Your task to perform on an android device: open app "Etsy: Buy & Sell Unique Items" (install if not already installed) and enter user name: "camp@inbox.com" and password: "unrelated" Image 0: 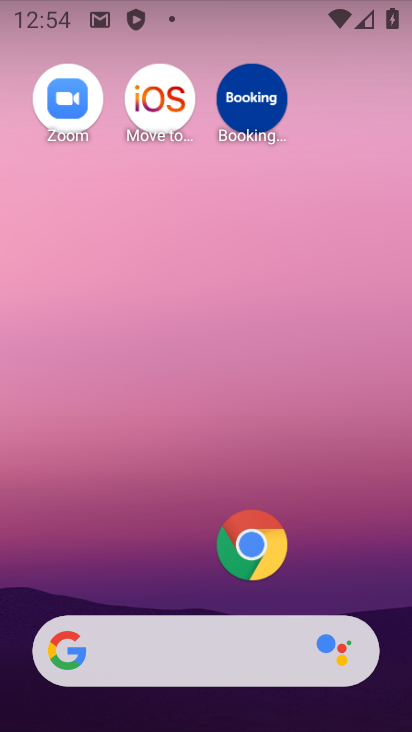
Step 0: drag from (96, 566) to (211, 30)
Your task to perform on an android device: open app "Etsy: Buy & Sell Unique Items" (install if not already installed) and enter user name: "camp@inbox.com" and password: "unrelated" Image 1: 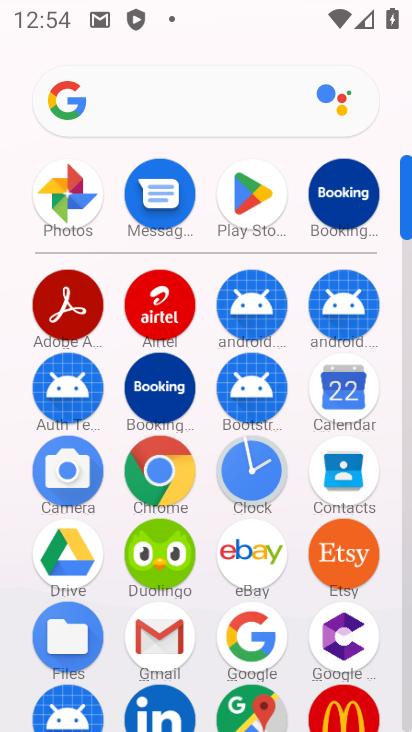
Step 1: click (243, 196)
Your task to perform on an android device: open app "Etsy: Buy & Sell Unique Items" (install if not already installed) and enter user name: "camp@inbox.com" and password: "unrelated" Image 2: 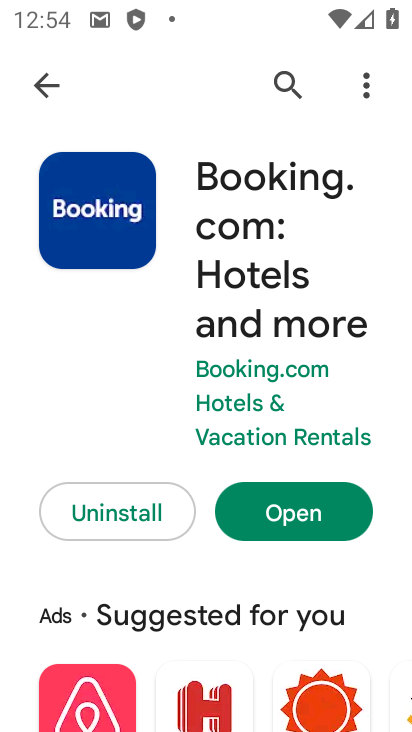
Step 2: click (288, 70)
Your task to perform on an android device: open app "Etsy: Buy & Sell Unique Items" (install if not already installed) and enter user name: "camp@inbox.com" and password: "unrelated" Image 3: 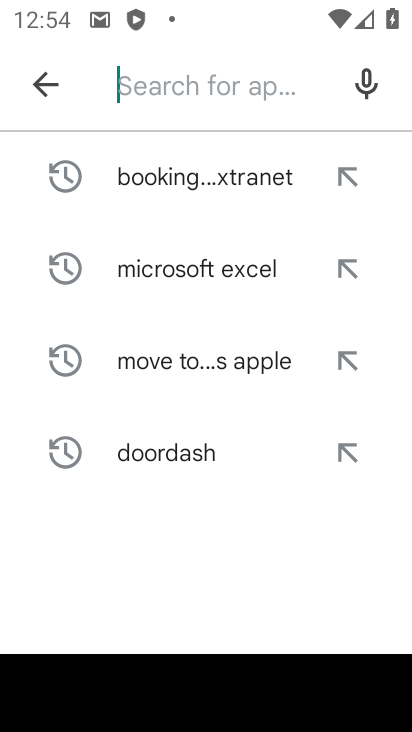
Step 3: click (197, 81)
Your task to perform on an android device: open app "Etsy: Buy & Sell Unique Items" (install if not already installed) and enter user name: "camp@inbox.com" and password: "unrelated" Image 4: 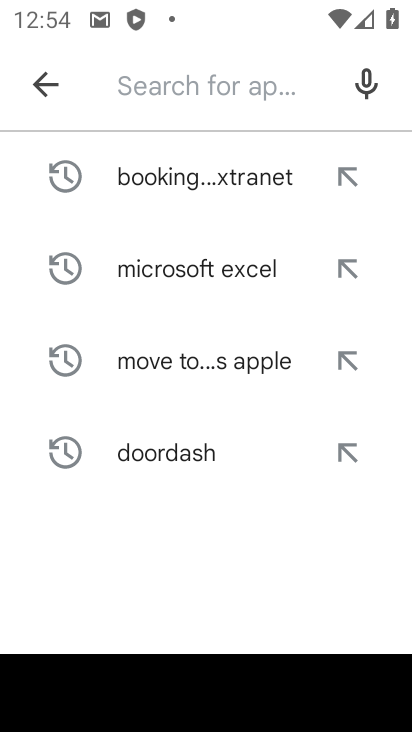
Step 4: type "etsy"
Your task to perform on an android device: open app "Etsy: Buy & Sell Unique Items" (install if not already installed) and enter user name: "camp@inbox.com" and password: "unrelated" Image 5: 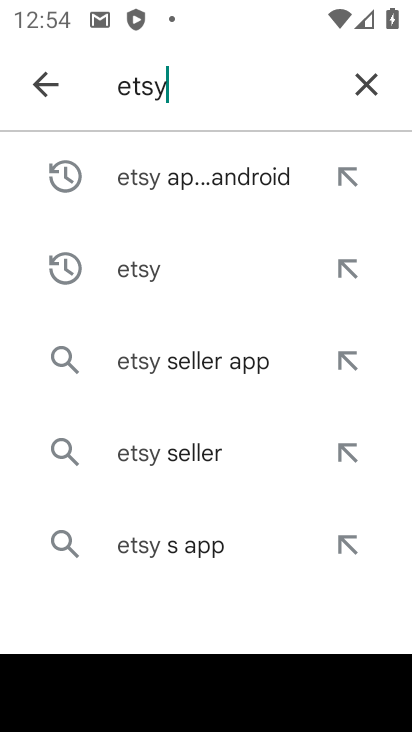
Step 5: click (147, 273)
Your task to perform on an android device: open app "Etsy: Buy & Sell Unique Items" (install if not already installed) and enter user name: "camp@inbox.com" and password: "unrelated" Image 6: 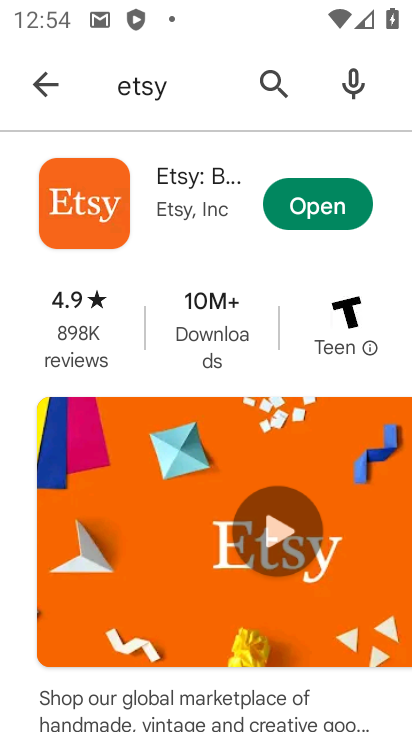
Step 6: click (301, 198)
Your task to perform on an android device: open app "Etsy: Buy & Sell Unique Items" (install if not already installed) and enter user name: "camp@inbox.com" and password: "unrelated" Image 7: 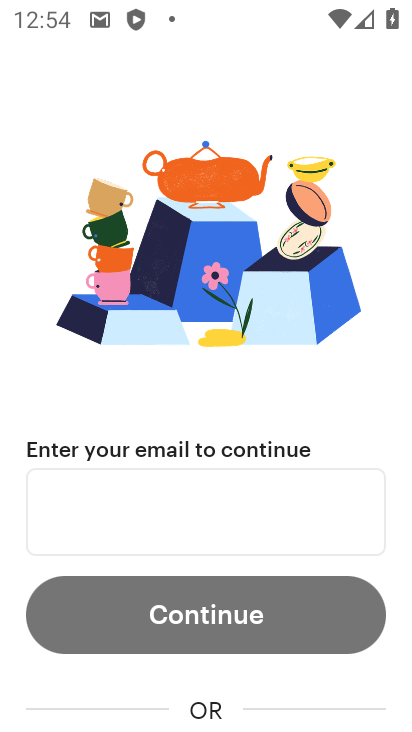
Step 7: drag from (229, 427) to (292, 50)
Your task to perform on an android device: open app "Etsy: Buy & Sell Unique Items" (install if not already installed) and enter user name: "camp@inbox.com" and password: "unrelated" Image 8: 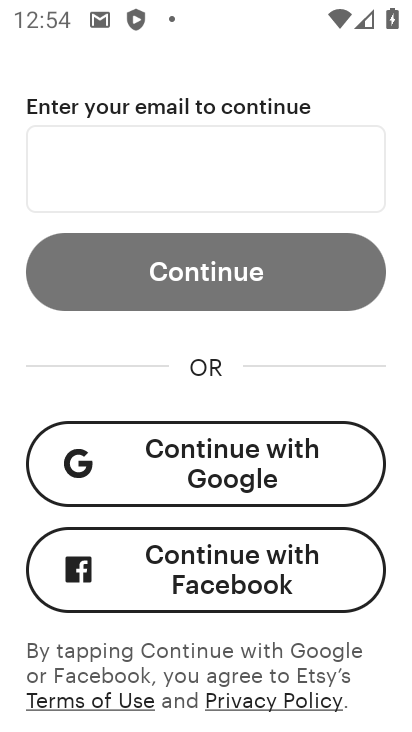
Step 8: click (93, 173)
Your task to perform on an android device: open app "Etsy: Buy & Sell Unique Items" (install if not already installed) and enter user name: "camp@inbox.com" and password: "unrelated" Image 9: 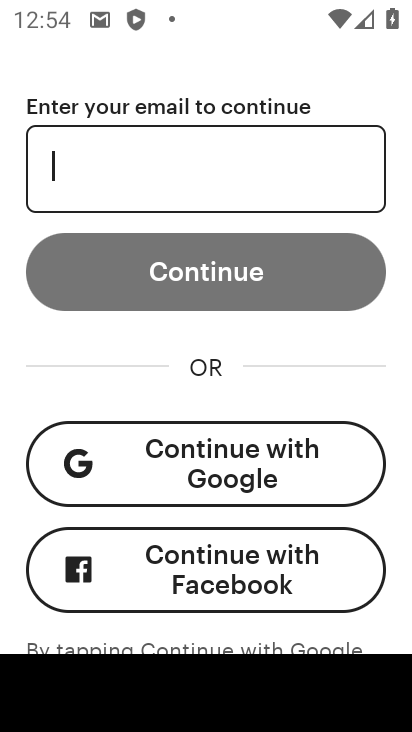
Step 9: type "camp@inbox.com"
Your task to perform on an android device: open app "Etsy: Buy & Sell Unique Items" (install if not already installed) and enter user name: "camp@inbox.com" and password: "unrelated" Image 10: 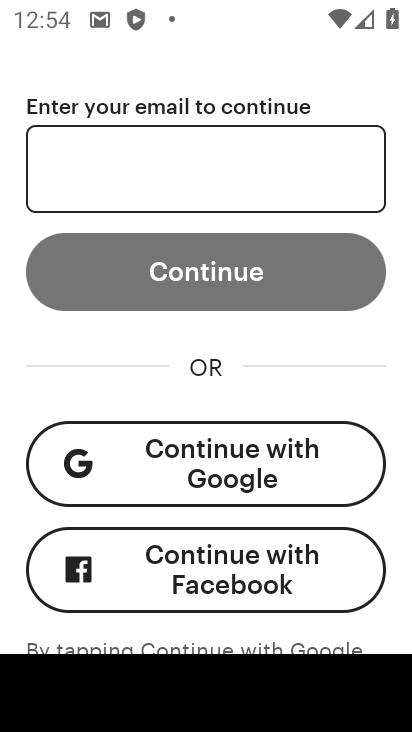
Step 10: click (65, 384)
Your task to perform on an android device: open app "Etsy: Buy & Sell Unique Items" (install if not already installed) and enter user name: "camp@inbox.com" and password: "unrelated" Image 11: 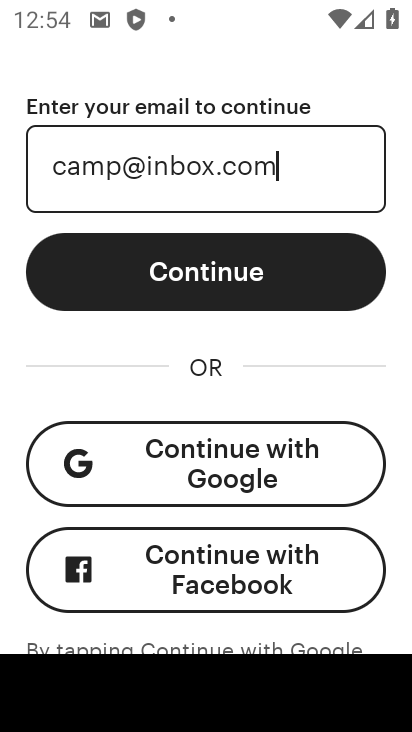
Step 11: click (224, 267)
Your task to perform on an android device: open app "Etsy: Buy & Sell Unique Items" (install if not already installed) and enter user name: "camp@inbox.com" and password: "unrelated" Image 12: 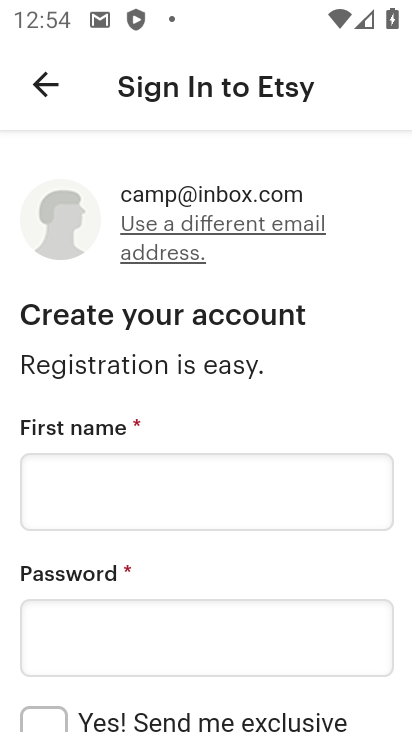
Step 12: drag from (122, 594) to (259, 301)
Your task to perform on an android device: open app "Etsy: Buy & Sell Unique Items" (install if not already installed) and enter user name: "camp@inbox.com" and password: "unrelated" Image 13: 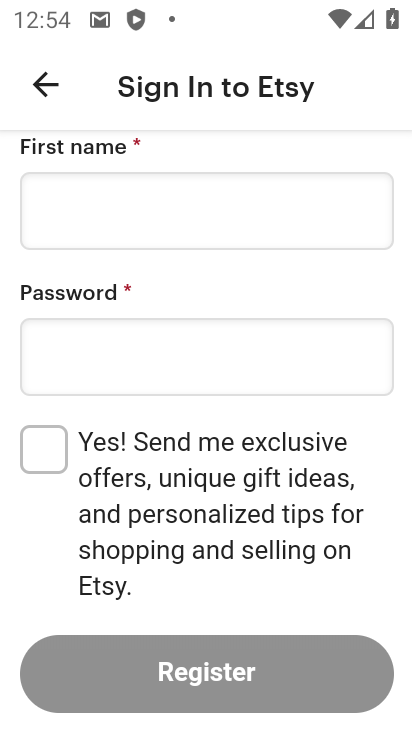
Step 13: click (45, 346)
Your task to perform on an android device: open app "Etsy: Buy & Sell Unique Items" (install if not already installed) and enter user name: "camp@inbox.com" and password: "unrelated" Image 14: 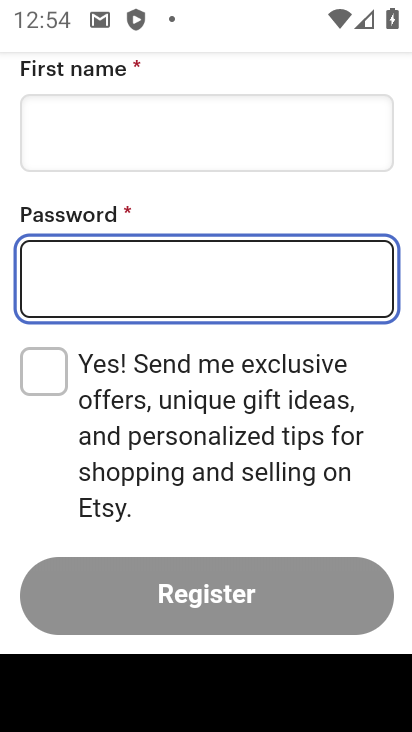
Step 14: click (77, 283)
Your task to perform on an android device: open app "Etsy: Buy & Sell Unique Items" (install if not already installed) and enter user name: "camp@inbox.com" and password: "unrelated" Image 15: 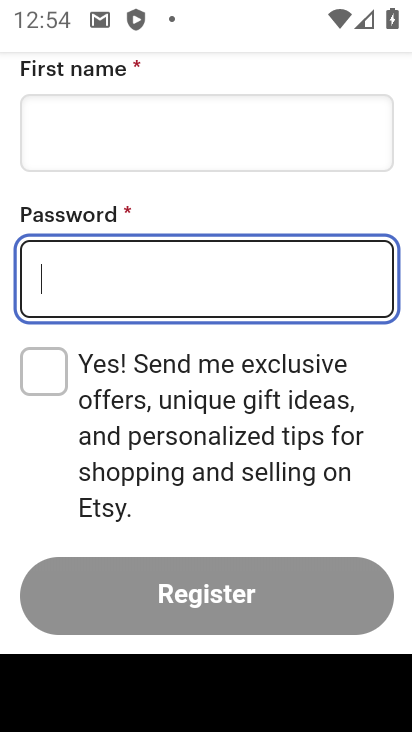
Step 15: type "unrelated"
Your task to perform on an android device: open app "Etsy: Buy & Sell Unique Items" (install if not already installed) and enter user name: "camp@inbox.com" and password: "unrelated" Image 16: 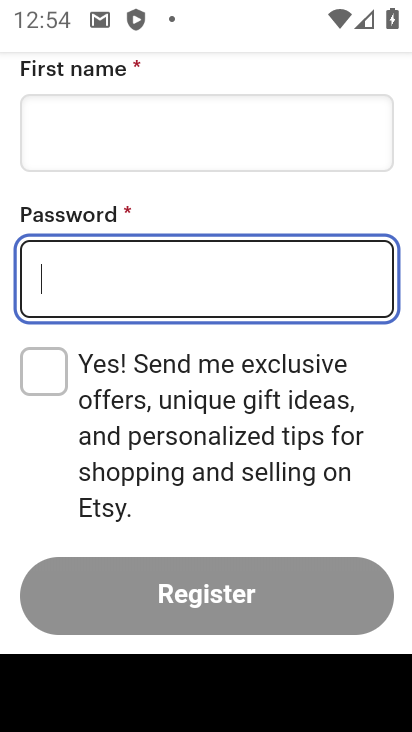
Step 16: click (10, 514)
Your task to perform on an android device: open app "Etsy: Buy & Sell Unique Items" (install if not already installed) and enter user name: "camp@inbox.com" and password: "unrelated" Image 17: 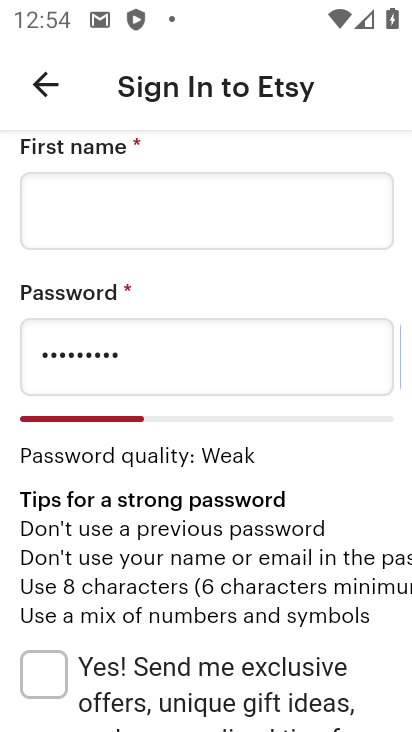
Step 17: task complete